Your task to perform on an android device: Go to network settings Image 0: 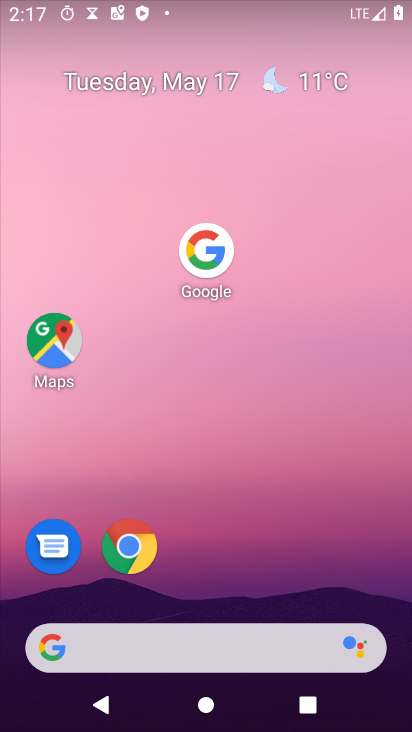
Step 0: press home button
Your task to perform on an android device: Go to network settings Image 1: 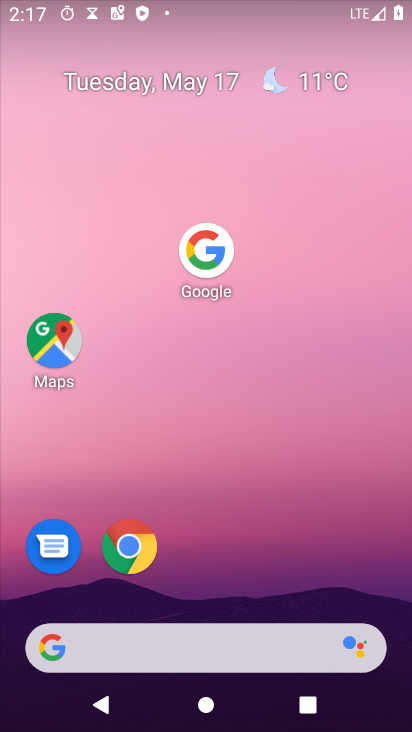
Step 1: drag from (168, 641) to (276, 132)
Your task to perform on an android device: Go to network settings Image 2: 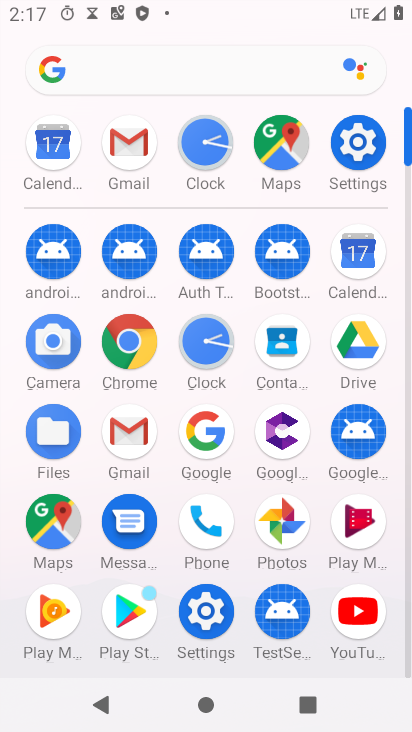
Step 2: click (357, 149)
Your task to perform on an android device: Go to network settings Image 3: 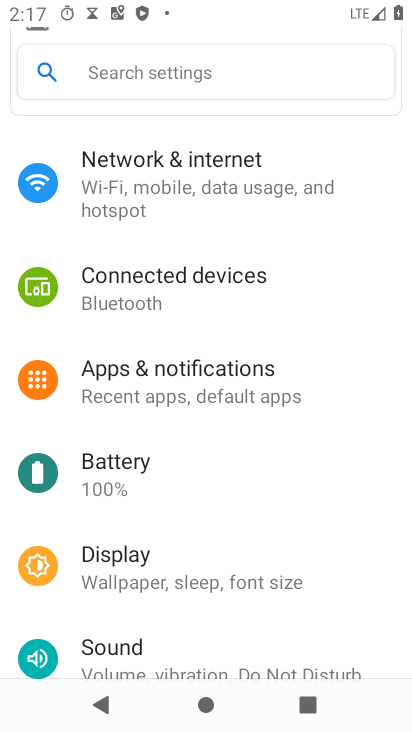
Step 3: click (207, 177)
Your task to perform on an android device: Go to network settings Image 4: 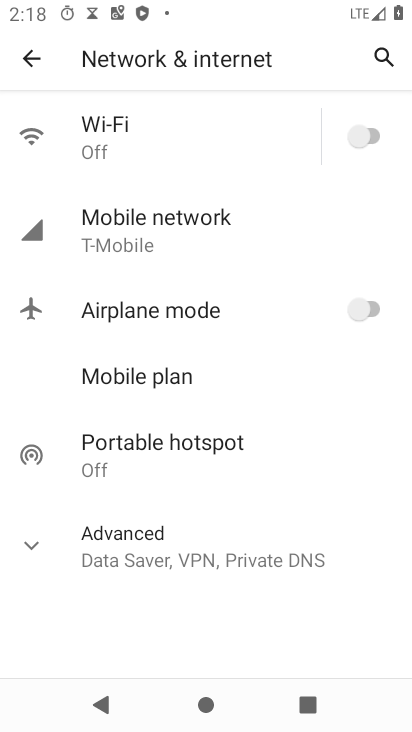
Step 4: task complete